Your task to perform on an android device: allow notifications from all sites in the chrome app Image 0: 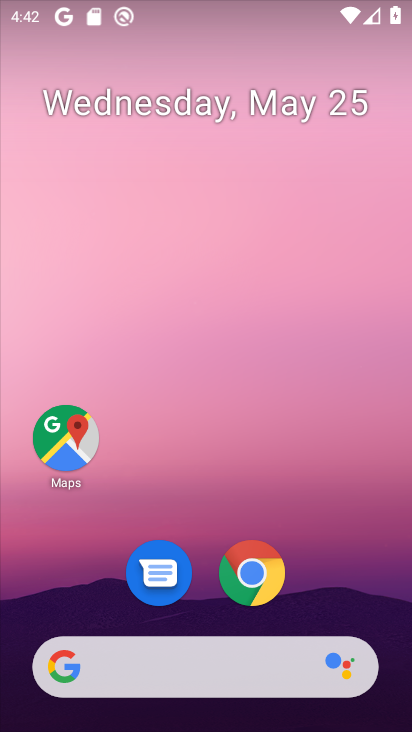
Step 0: click (259, 583)
Your task to perform on an android device: allow notifications from all sites in the chrome app Image 1: 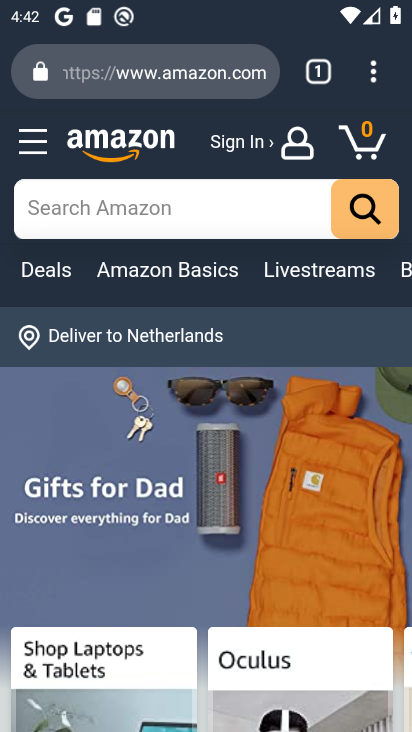
Step 1: click (374, 82)
Your task to perform on an android device: allow notifications from all sites in the chrome app Image 2: 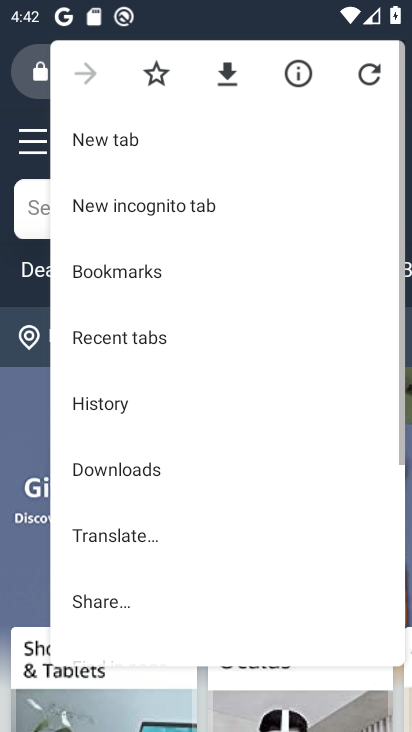
Step 2: drag from (117, 571) to (162, 184)
Your task to perform on an android device: allow notifications from all sites in the chrome app Image 3: 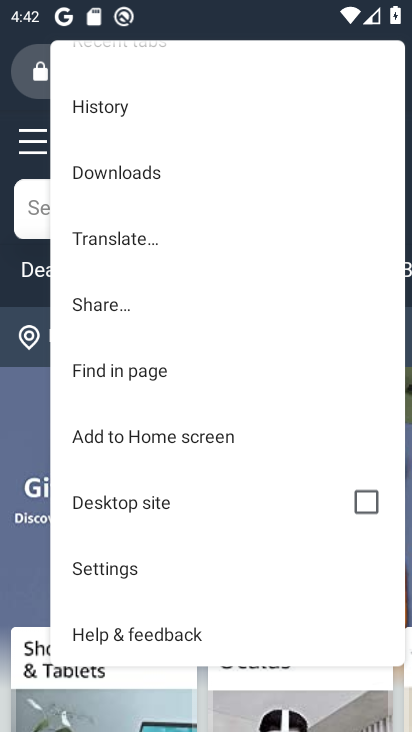
Step 3: click (120, 569)
Your task to perform on an android device: allow notifications from all sites in the chrome app Image 4: 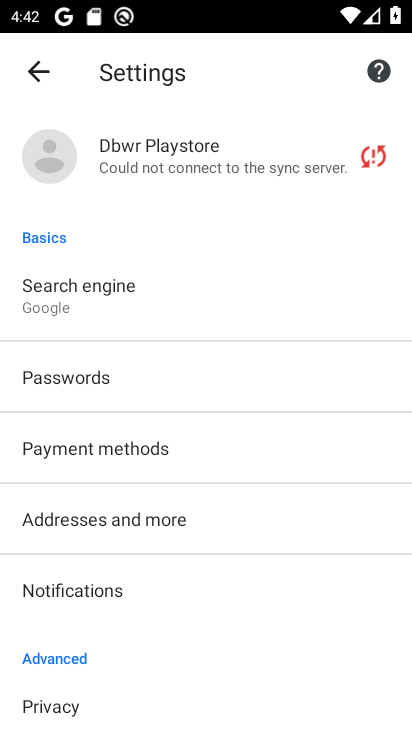
Step 4: drag from (146, 629) to (169, 359)
Your task to perform on an android device: allow notifications from all sites in the chrome app Image 5: 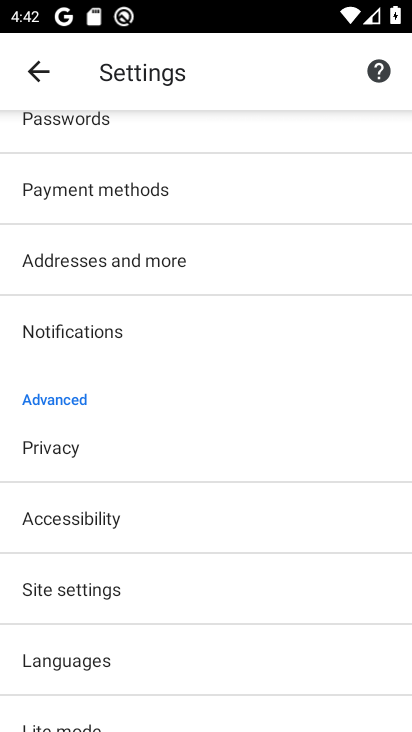
Step 5: drag from (101, 638) to (122, 398)
Your task to perform on an android device: allow notifications from all sites in the chrome app Image 6: 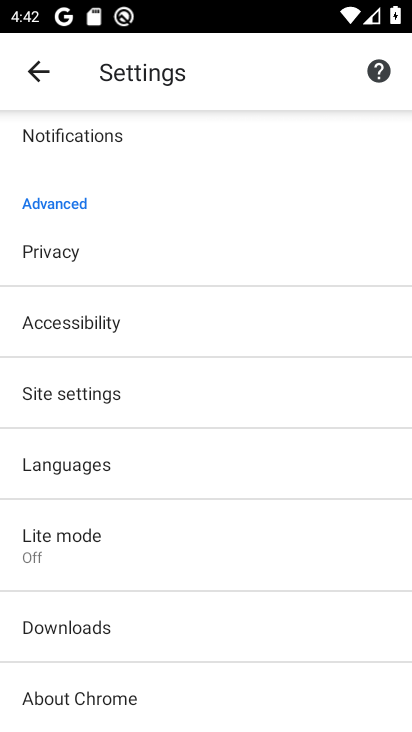
Step 6: click (114, 389)
Your task to perform on an android device: allow notifications from all sites in the chrome app Image 7: 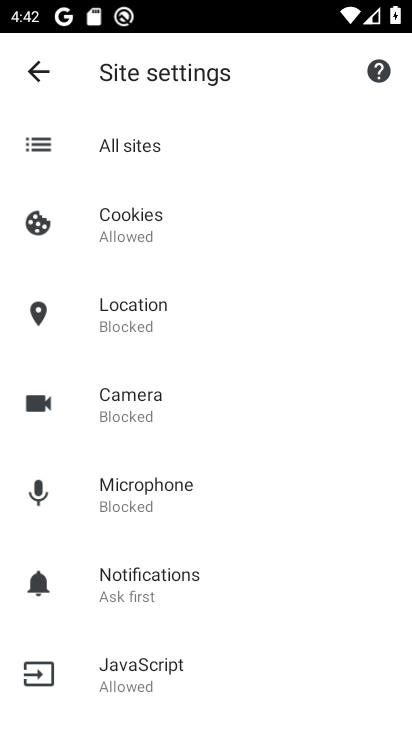
Step 7: click (140, 579)
Your task to perform on an android device: allow notifications from all sites in the chrome app Image 8: 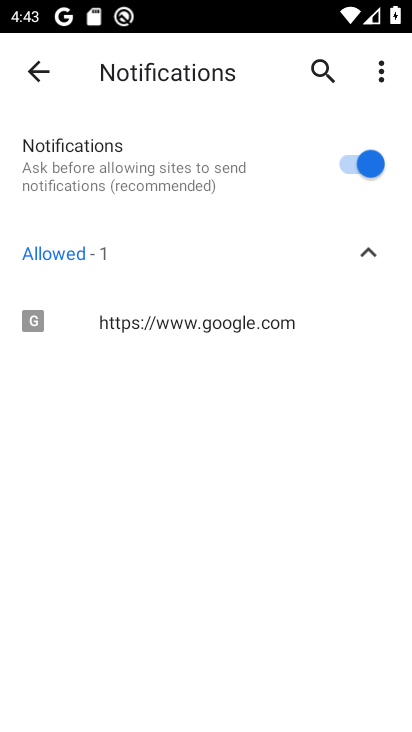
Step 8: task complete